Your task to perform on an android device: Go to Yahoo.com Image 0: 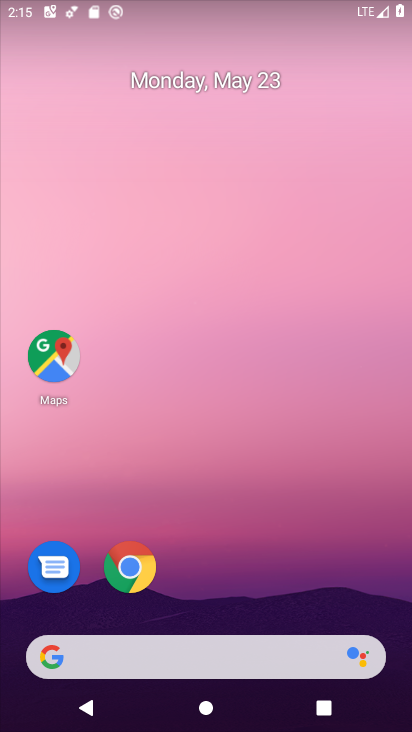
Step 0: drag from (174, 596) to (209, 263)
Your task to perform on an android device: Go to Yahoo.com Image 1: 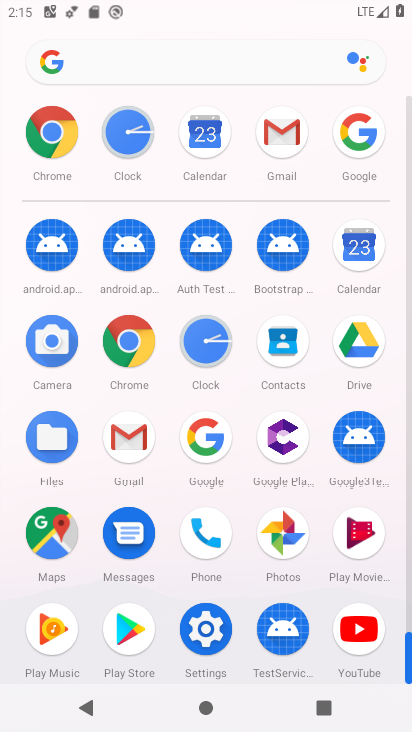
Step 1: click (141, 364)
Your task to perform on an android device: Go to Yahoo.com Image 2: 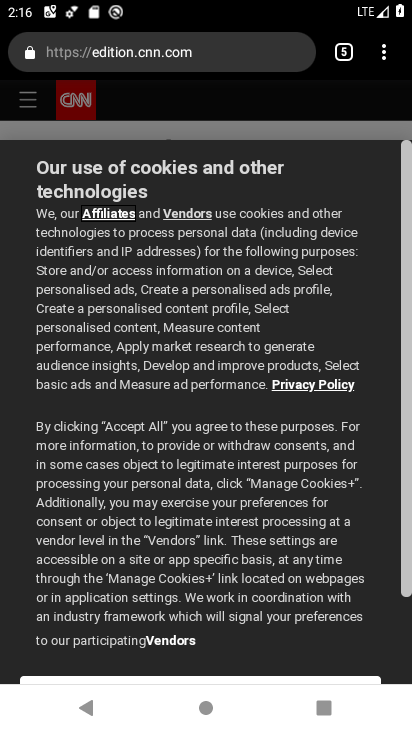
Step 2: click (347, 47)
Your task to perform on an android device: Go to Yahoo.com Image 3: 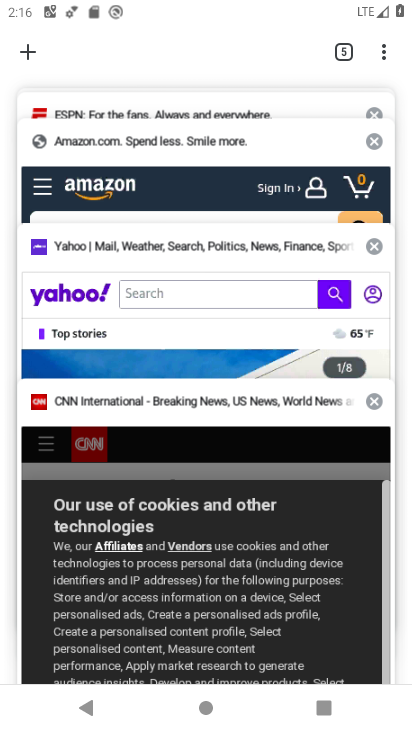
Step 3: click (27, 57)
Your task to perform on an android device: Go to Yahoo.com Image 4: 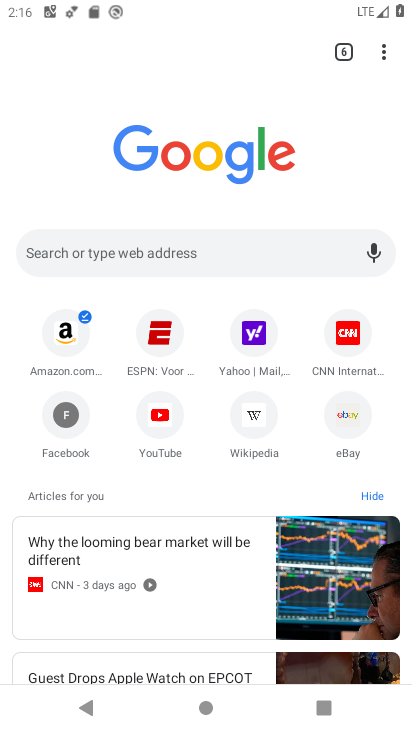
Step 4: click (239, 345)
Your task to perform on an android device: Go to Yahoo.com Image 5: 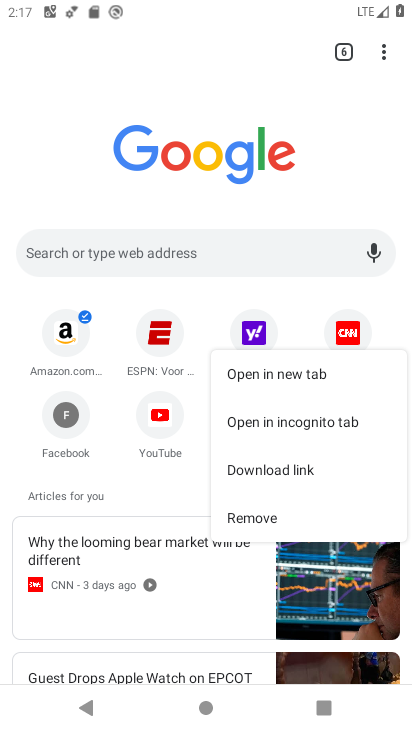
Step 5: click (247, 340)
Your task to perform on an android device: Go to Yahoo.com Image 6: 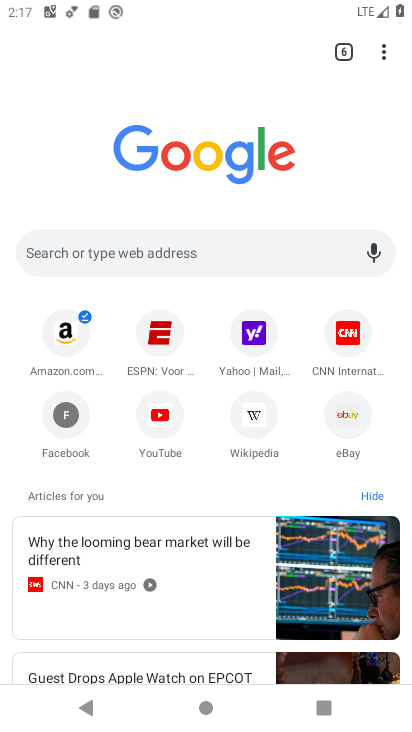
Step 6: click (260, 346)
Your task to perform on an android device: Go to Yahoo.com Image 7: 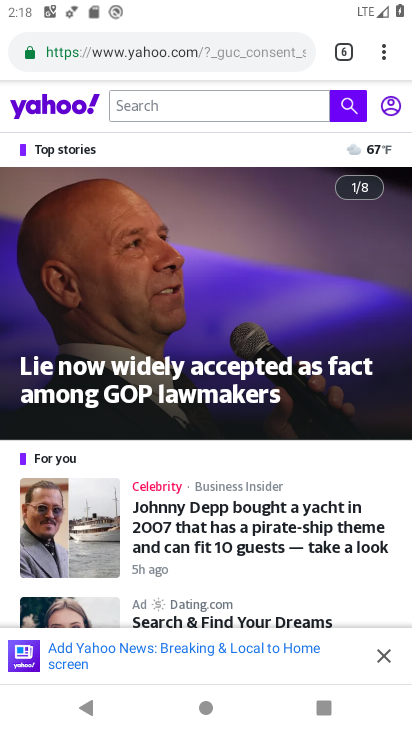
Step 7: task complete